Your task to perform on an android device: Search for seafood restaurants on Google Maps Image 0: 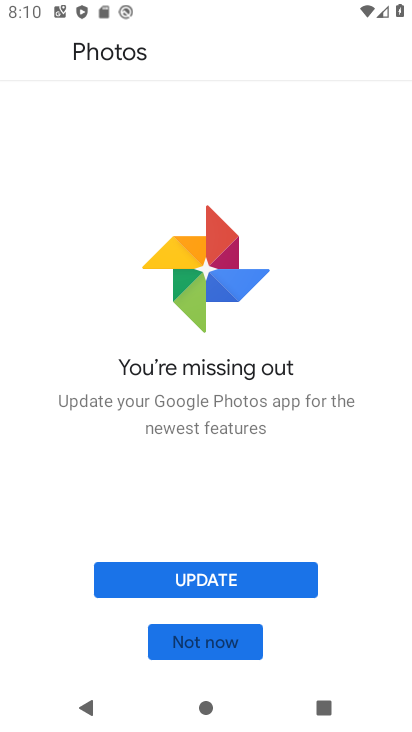
Step 0: press back button
Your task to perform on an android device: Search for seafood restaurants on Google Maps Image 1: 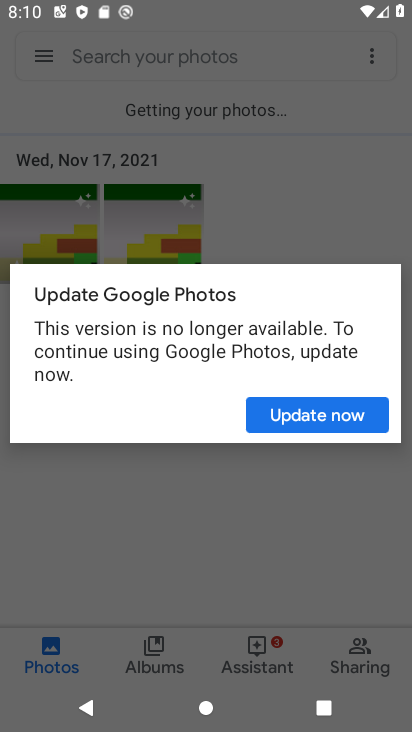
Step 1: press back button
Your task to perform on an android device: Search for seafood restaurants on Google Maps Image 2: 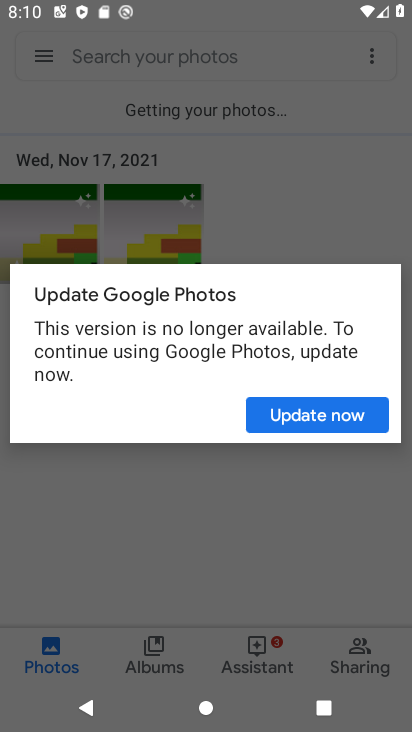
Step 2: press home button
Your task to perform on an android device: Search for seafood restaurants on Google Maps Image 3: 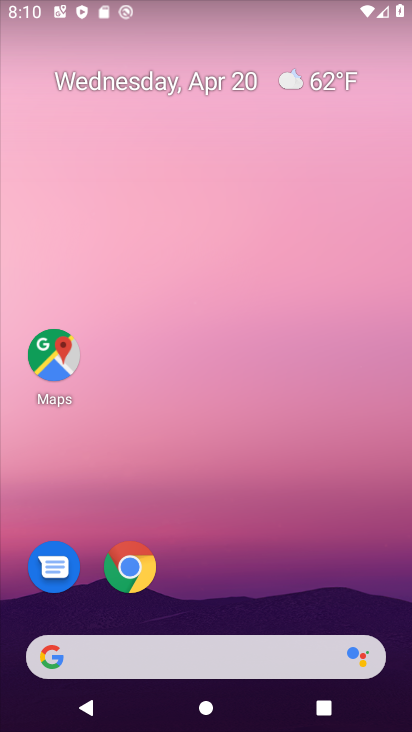
Step 3: drag from (354, 448) to (321, 8)
Your task to perform on an android device: Search for seafood restaurants on Google Maps Image 4: 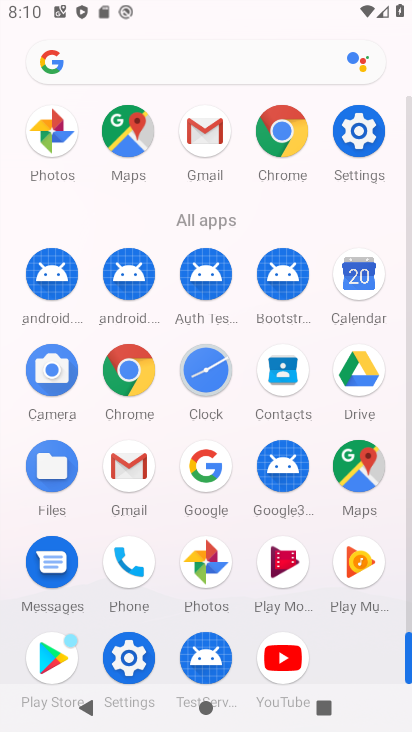
Step 4: drag from (5, 538) to (3, 366)
Your task to perform on an android device: Search for seafood restaurants on Google Maps Image 5: 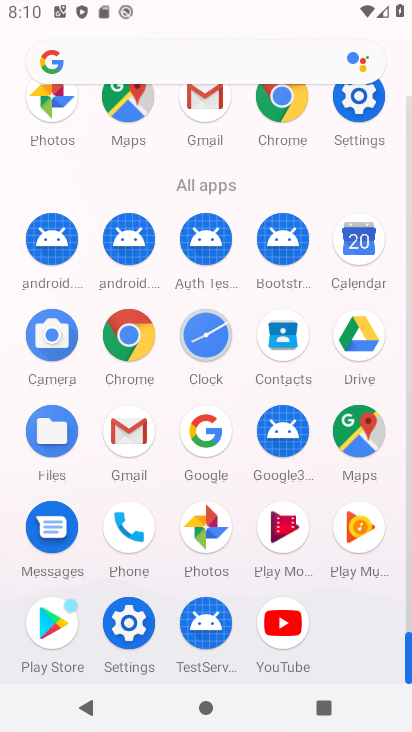
Step 5: click (357, 429)
Your task to perform on an android device: Search for seafood restaurants on Google Maps Image 6: 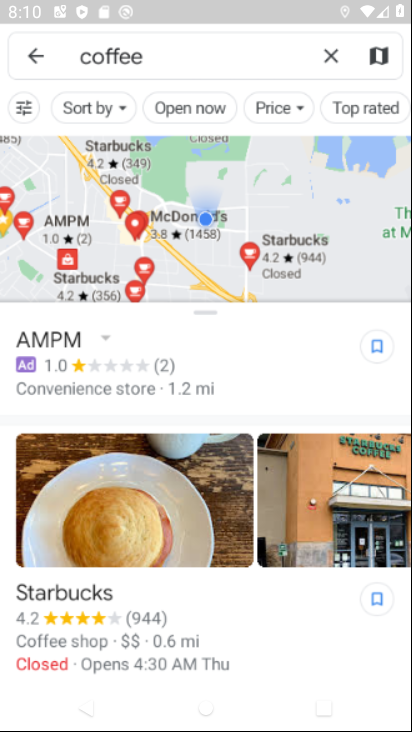
Step 6: click (335, 64)
Your task to perform on an android device: Search for seafood restaurants on Google Maps Image 7: 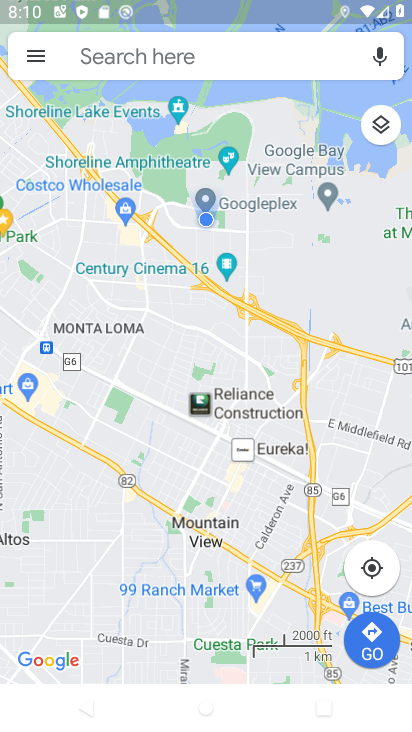
Step 7: click (251, 56)
Your task to perform on an android device: Search for seafood restaurants on Google Maps Image 8: 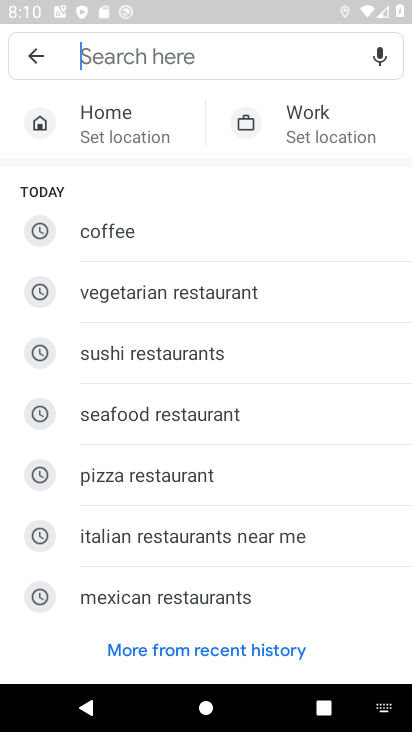
Step 8: click (171, 408)
Your task to perform on an android device: Search for seafood restaurants on Google Maps Image 9: 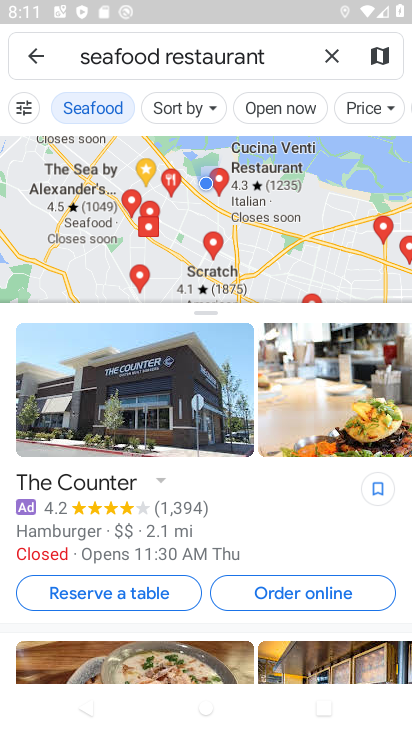
Step 9: task complete